Your task to perform on an android device: turn off sleep mode Image 0: 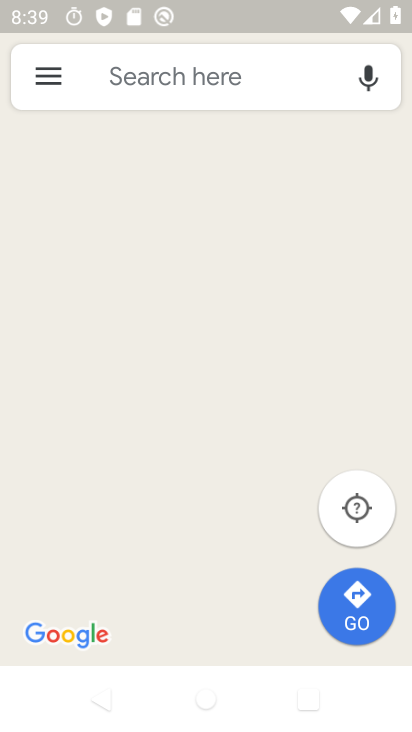
Step 0: press home button
Your task to perform on an android device: turn off sleep mode Image 1: 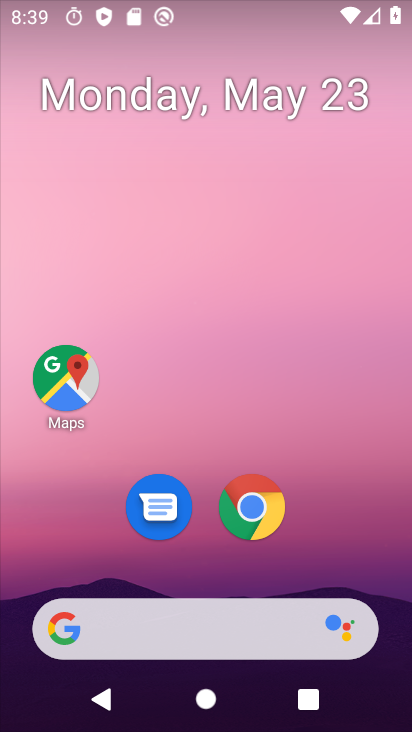
Step 1: drag from (331, 523) to (409, 110)
Your task to perform on an android device: turn off sleep mode Image 2: 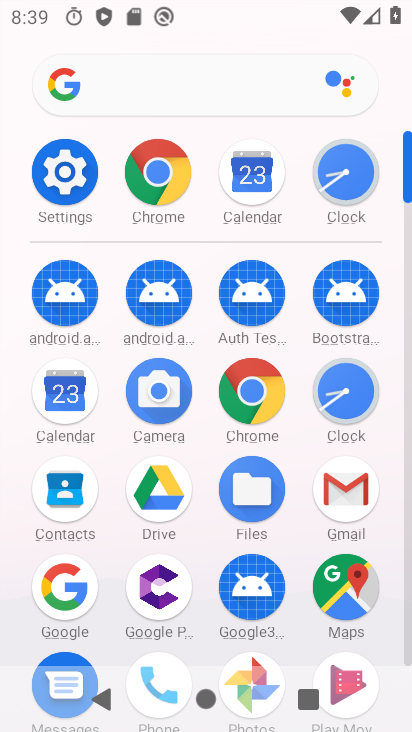
Step 2: click (43, 192)
Your task to perform on an android device: turn off sleep mode Image 3: 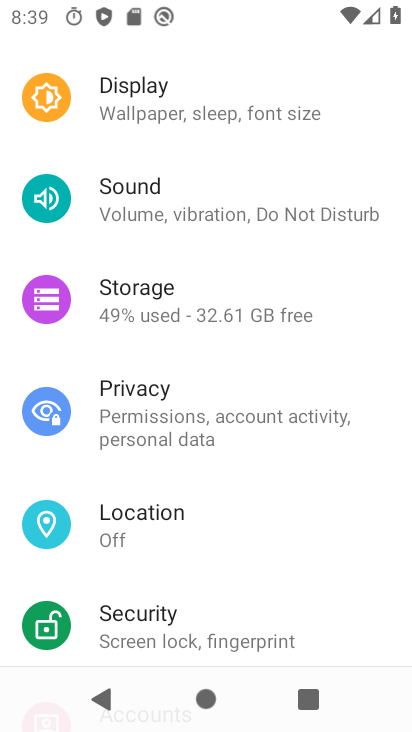
Step 3: click (156, 107)
Your task to perform on an android device: turn off sleep mode Image 4: 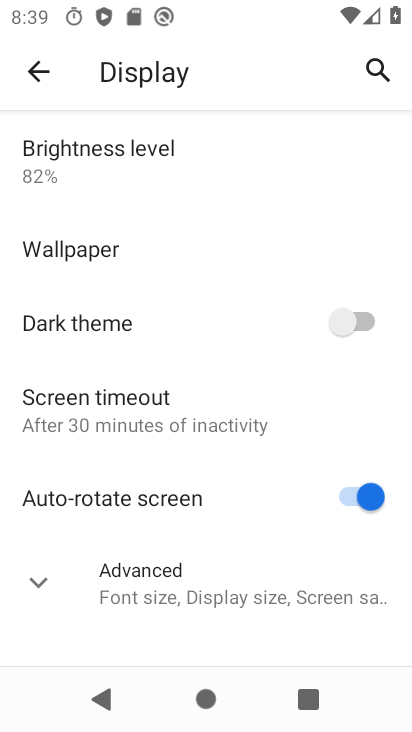
Step 4: drag from (207, 614) to (148, 284)
Your task to perform on an android device: turn off sleep mode Image 5: 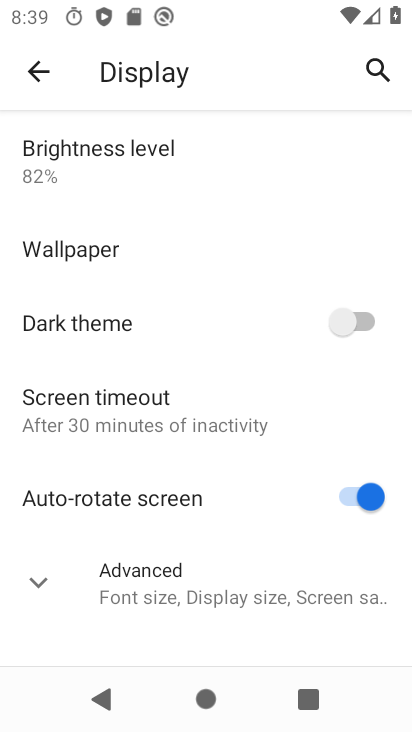
Step 5: click (97, 408)
Your task to perform on an android device: turn off sleep mode Image 6: 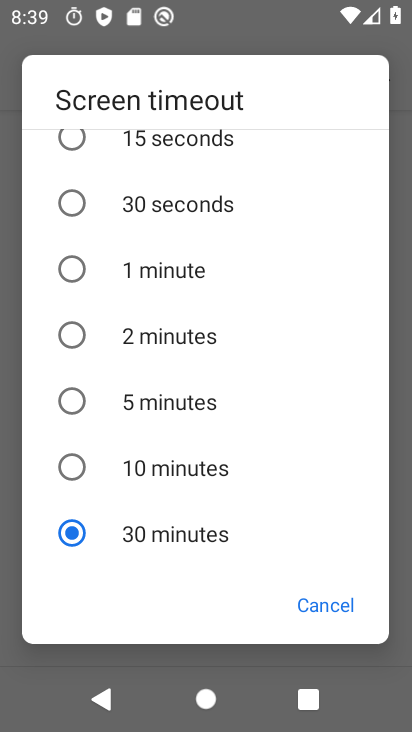
Step 6: task complete